Your task to perform on an android device: Open Google Chrome and open the bookmarks view Image 0: 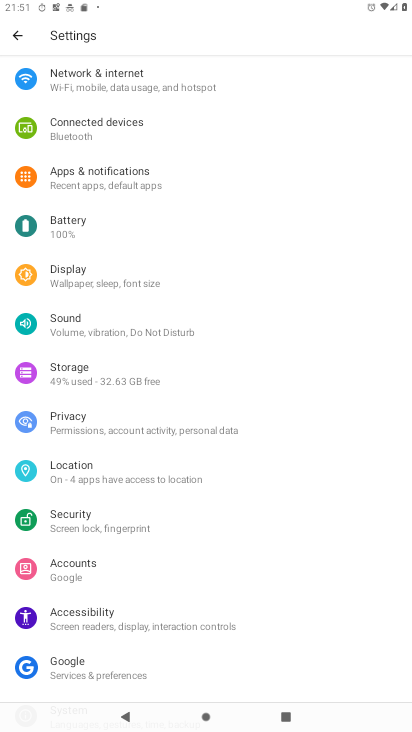
Step 0: press back button
Your task to perform on an android device: Open Google Chrome and open the bookmarks view Image 1: 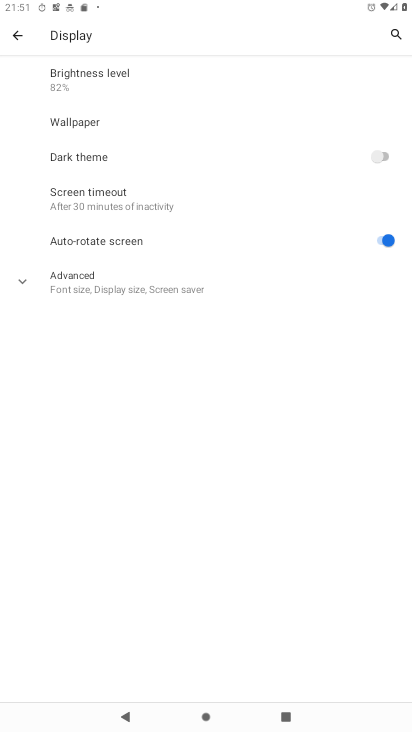
Step 1: click (19, 33)
Your task to perform on an android device: Open Google Chrome and open the bookmarks view Image 2: 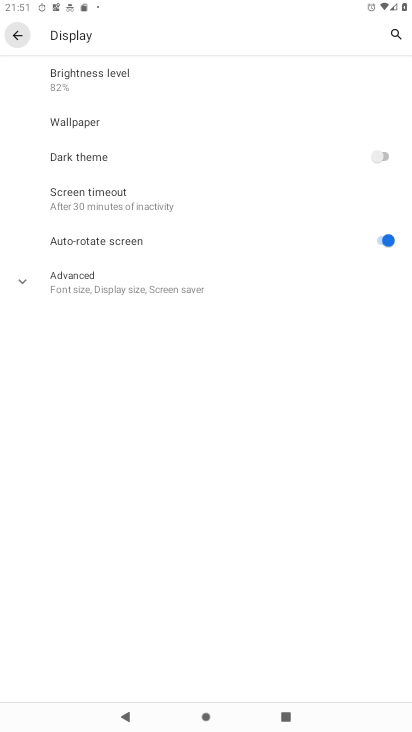
Step 2: click (18, 32)
Your task to perform on an android device: Open Google Chrome and open the bookmarks view Image 3: 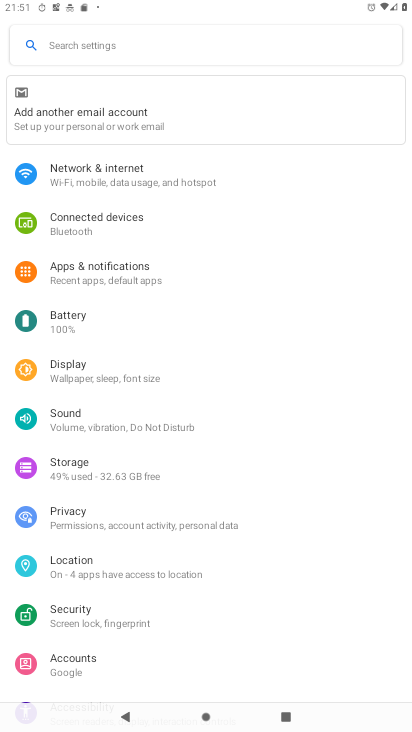
Step 3: press back button
Your task to perform on an android device: Open Google Chrome and open the bookmarks view Image 4: 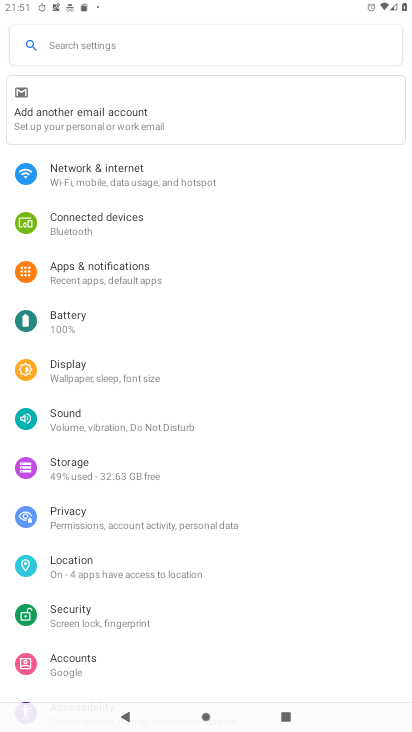
Step 4: press back button
Your task to perform on an android device: Open Google Chrome and open the bookmarks view Image 5: 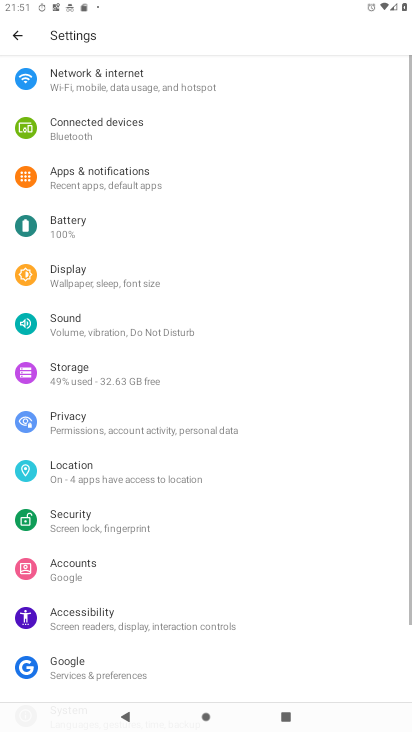
Step 5: press back button
Your task to perform on an android device: Open Google Chrome and open the bookmarks view Image 6: 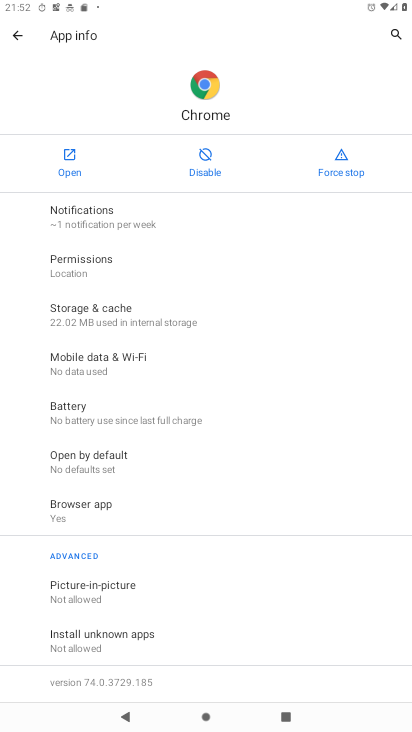
Step 6: press back button
Your task to perform on an android device: Open Google Chrome and open the bookmarks view Image 7: 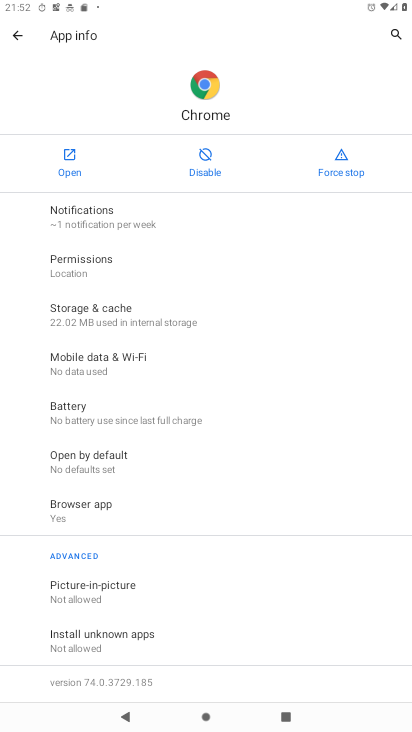
Step 7: press home button
Your task to perform on an android device: Open Google Chrome and open the bookmarks view Image 8: 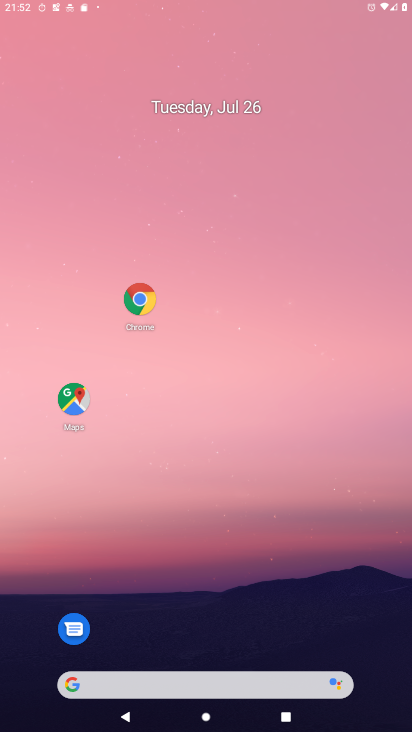
Step 8: press home button
Your task to perform on an android device: Open Google Chrome and open the bookmarks view Image 9: 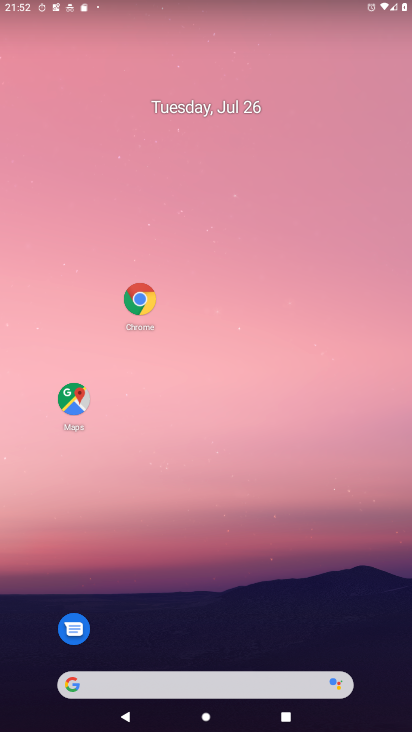
Step 9: drag from (253, 627) to (143, 67)
Your task to perform on an android device: Open Google Chrome and open the bookmarks view Image 10: 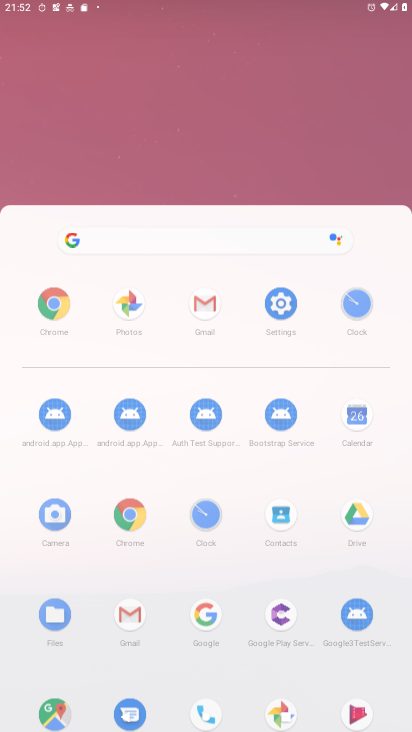
Step 10: drag from (242, 494) to (226, 58)
Your task to perform on an android device: Open Google Chrome and open the bookmarks view Image 11: 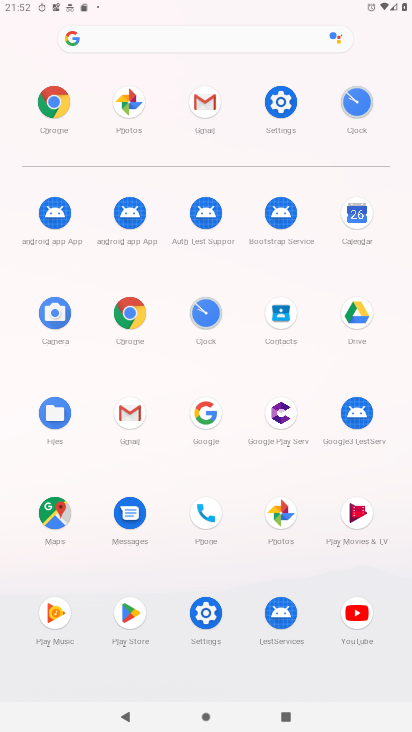
Step 11: click (46, 110)
Your task to perform on an android device: Open Google Chrome and open the bookmarks view Image 12: 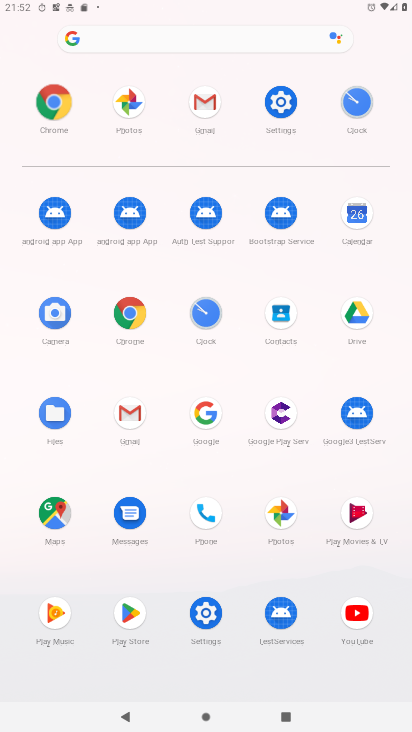
Step 12: click (47, 108)
Your task to perform on an android device: Open Google Chrome and open the bookmarks view Image 13: 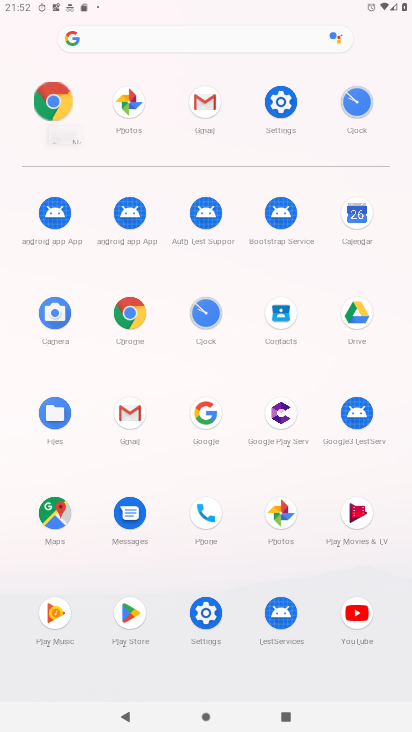
Step 13: click (45, 106)
Your task to perform on an android device: Open Google Chrome and open the bookmarks view Image 14: 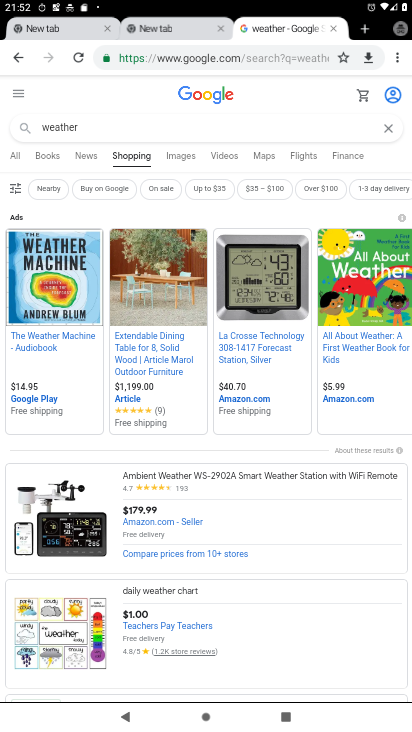
Step 14: click (394, 59)
Your task to perform on an android device: Open Google Chrome and open the bookmarks view Image 15: 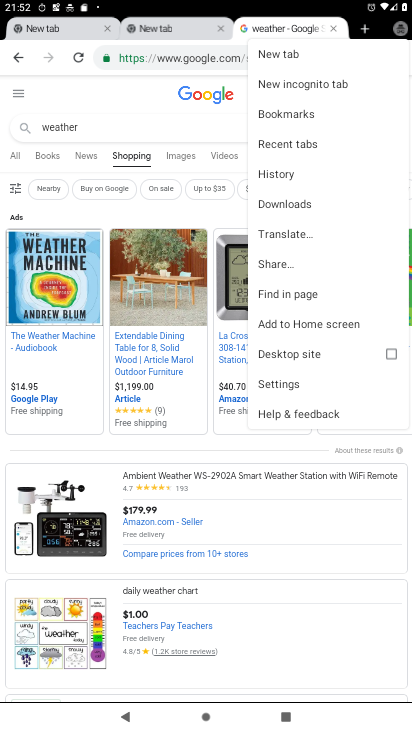
Step 15: click (280, 118)
Your task to perform on an android device: Open Google Chrome and open the bookmarks view Image 16: 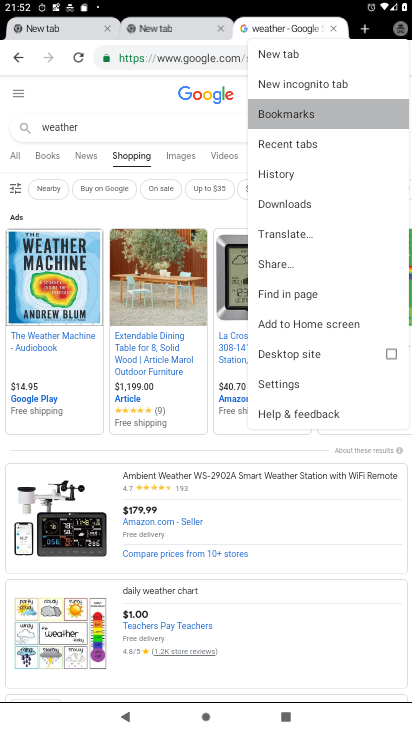
Step 16: click (281, 115)
Your task to perform on an android device: Open Google Chrome and open the bookmarks view Image 17: 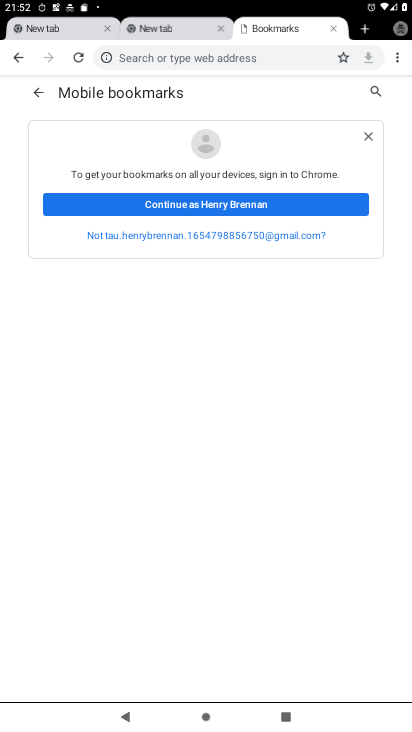
Step 17: click (362, 133)
Your task to perform on an android device: Open Google Chrome and open the bookmarks view Image 18: 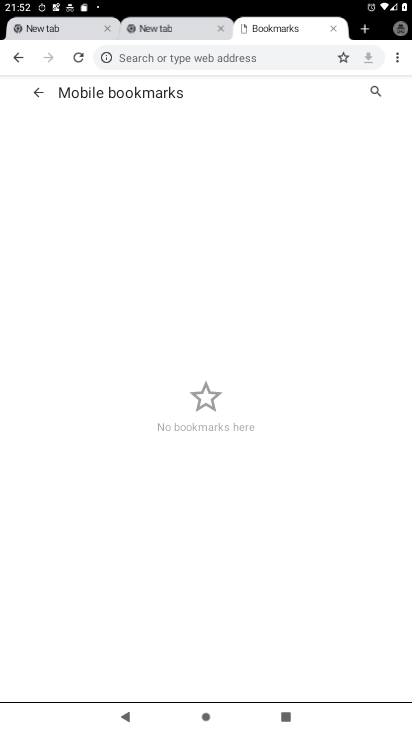
Step 18: task complete